Your task to perform on an android device: Search for "usb-b" on newegg.com, select the first entry, and add it to the cart. Image 0: 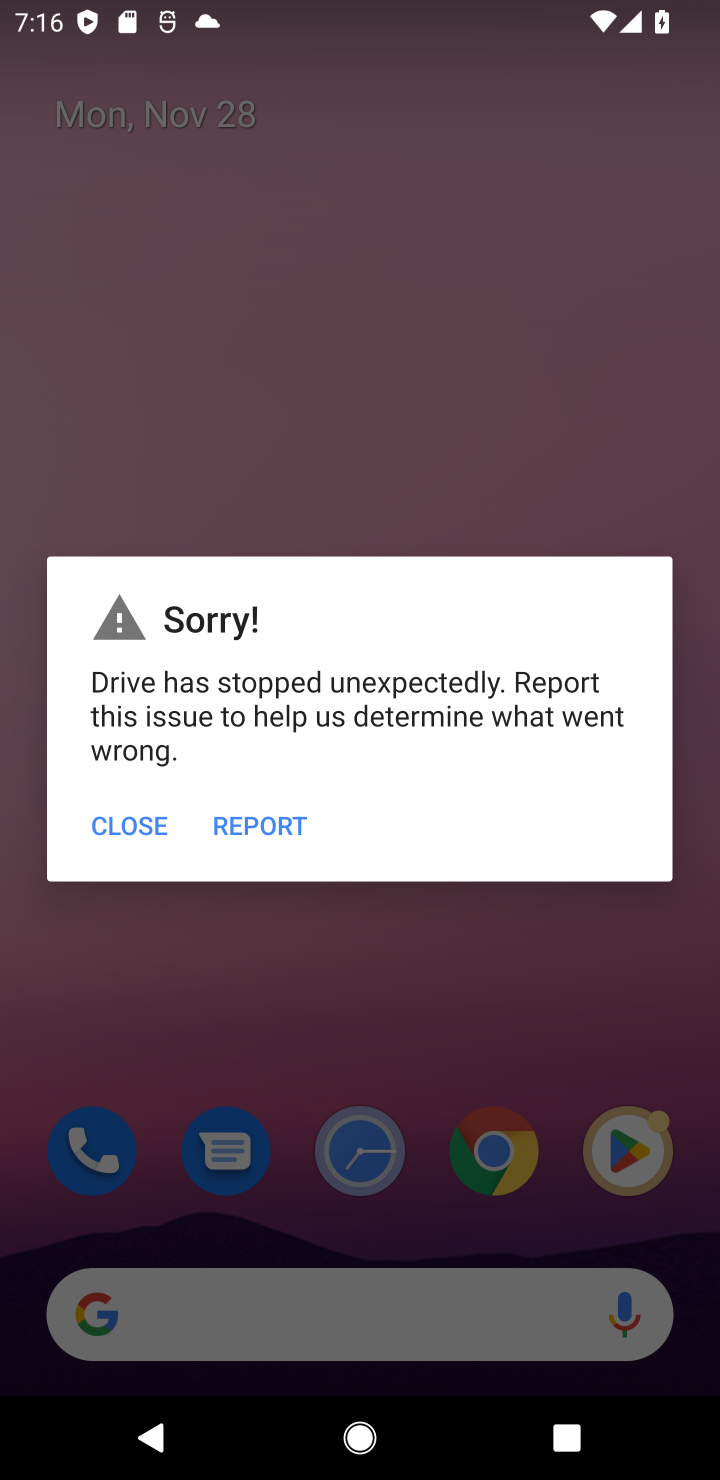
Step 0: click (153, 822)
Your task to perform on an android device: Search for "usb-b" on newegg.com, select the first entry, and add it to the cart. Image 1: 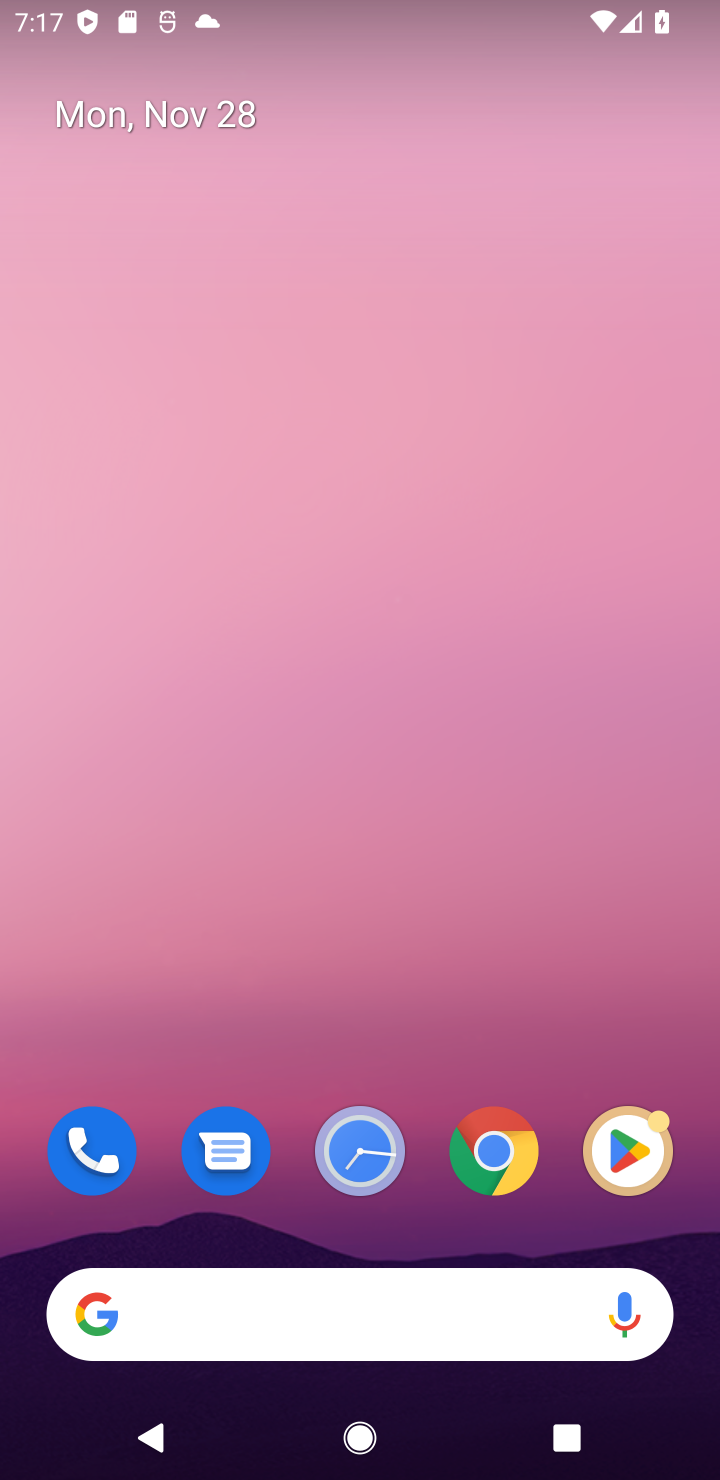
Step 1: click (351, 1297)
Your task to perform on an android device: Search for "usb-b" on newegg.com, select the first entry, and add it to the cart. Image 2: 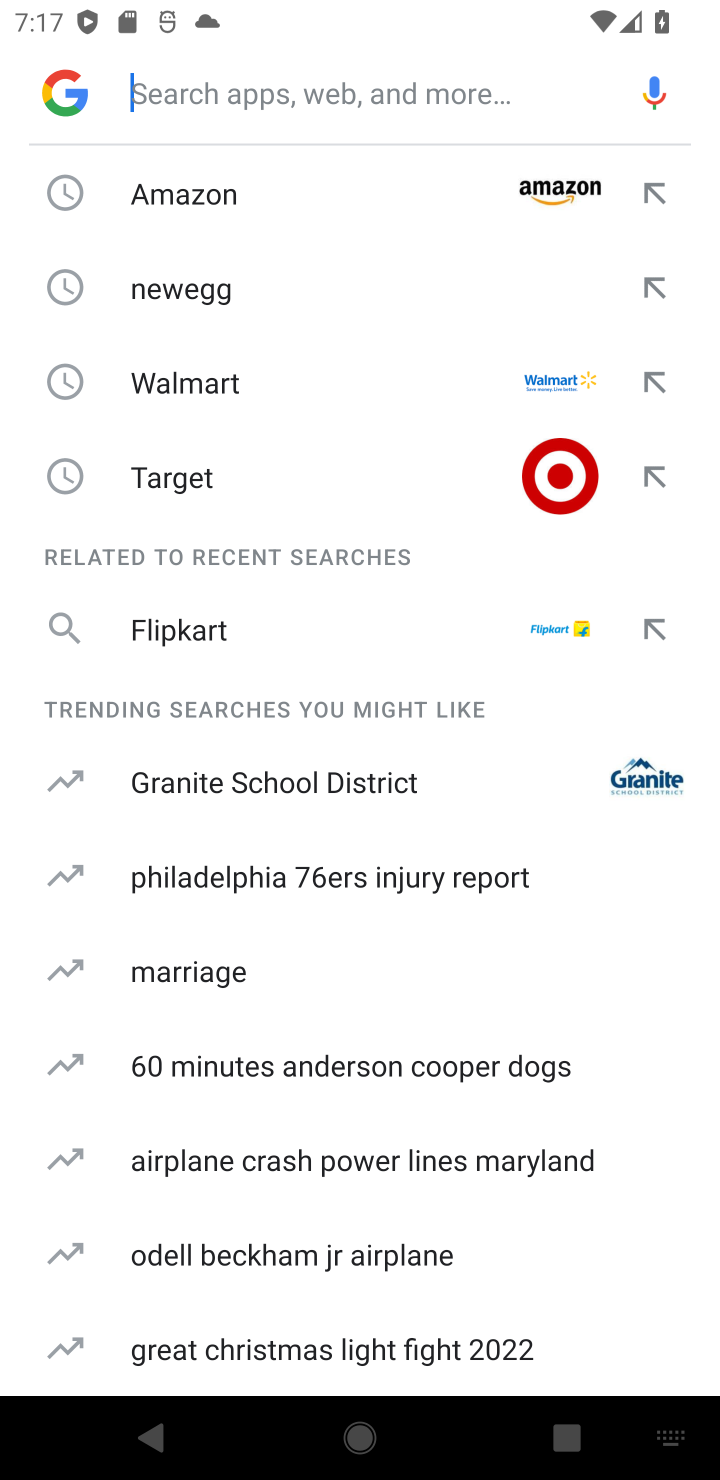
Step 2: click (165, 304)
Your task to perform on an android device: Search for "usb-b" on newegg.com, select the first entry, and add it to the cart. Image 3: 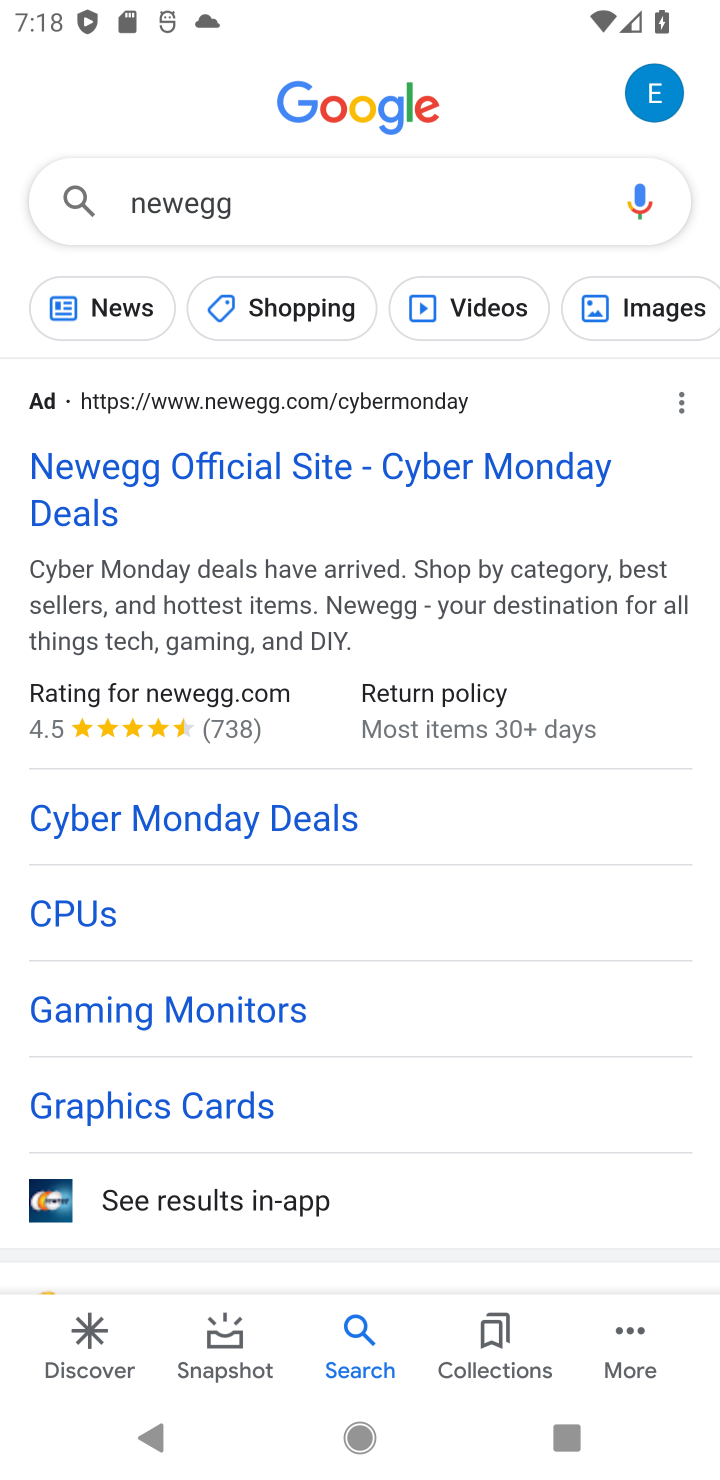
Step 3: click (69, 489)
Your task to perform on an android device: Search for "usb-b" on newegg.com, select the first entry, and add it to the cart. Image 4: 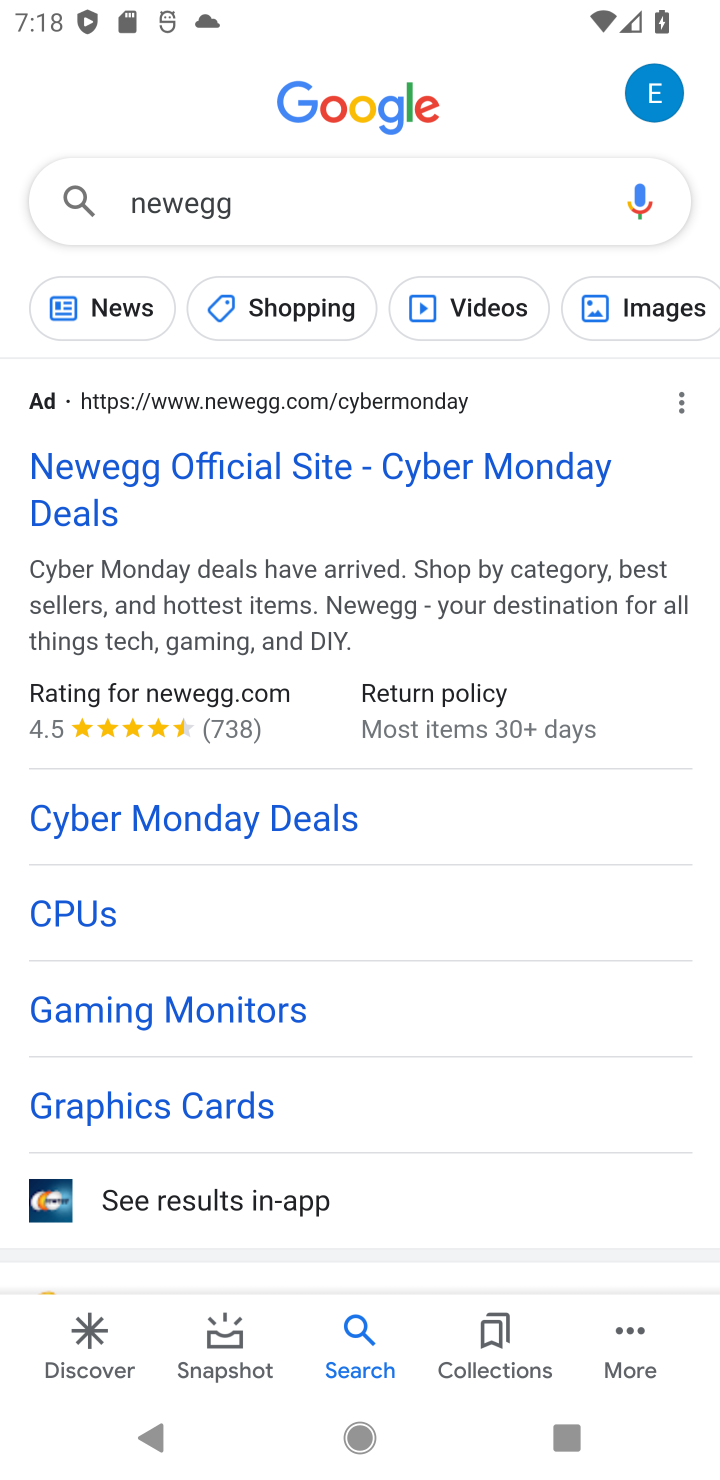
Step 4: task complete